Your task to perform on an android device: Open privacy settings Image 0: 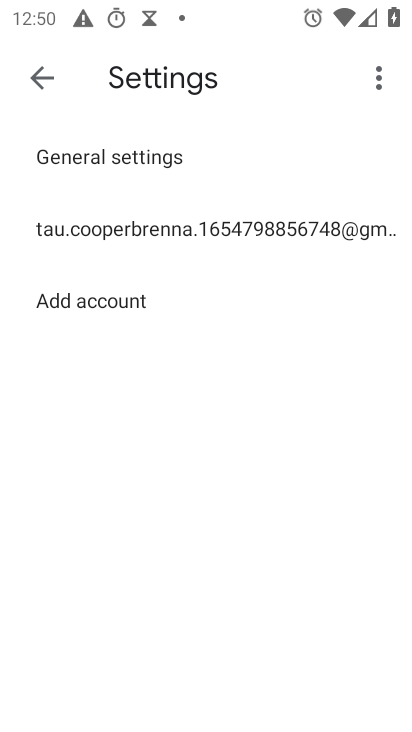
Step 0: press home button
Your task to perform on an android device: Open privacy settings Image 1: 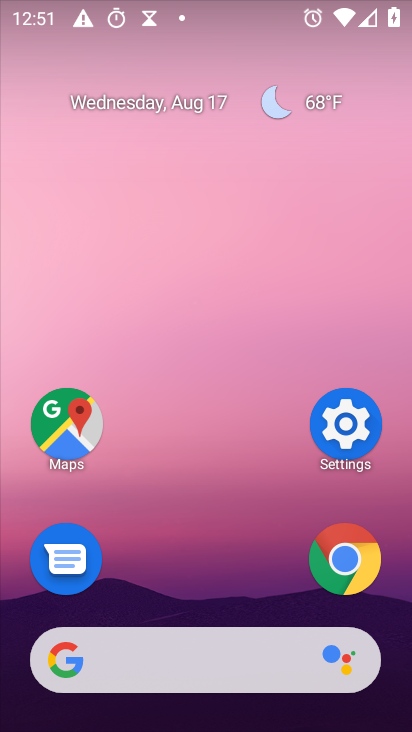
Step 1: click (358, 429)
Your task to perform on an android device: Open privacy settings Image 2: 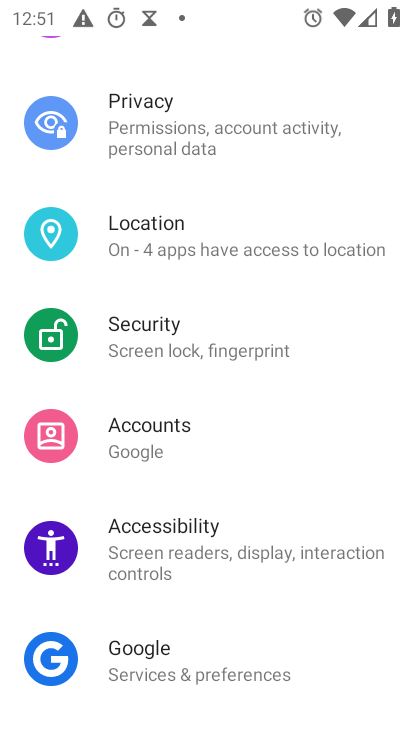
Step 2: click (169, 123)
Your task to perform on an android device: Open privacy settings Image 3: 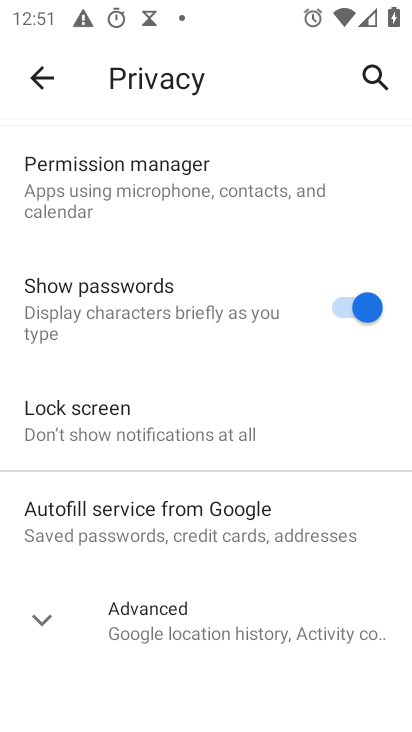
Step 3: task complete